Your task to perform on an android device: Is it going to rain today? Image 0: 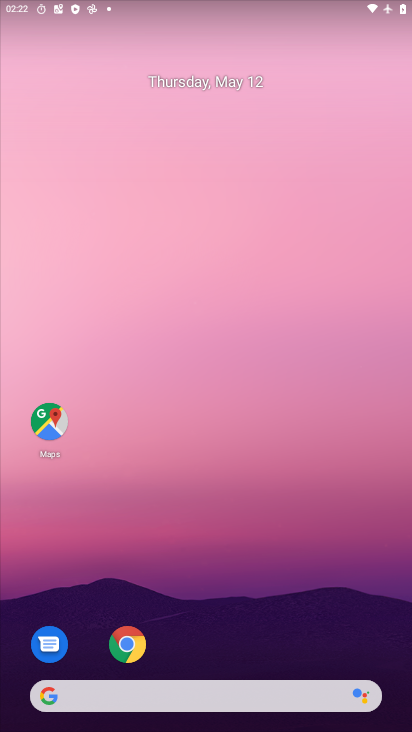
Step 0: drag from (268, 575) to (204, 101)
Your task to perform on an android device: Is it going to rain today? Image 1: 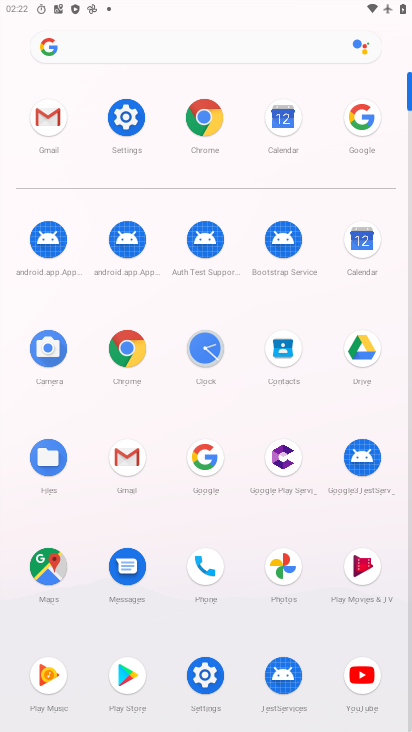
Step 1: click (204, 455)
Your task to perform on an android device: Is it going to rain today? Image 2: 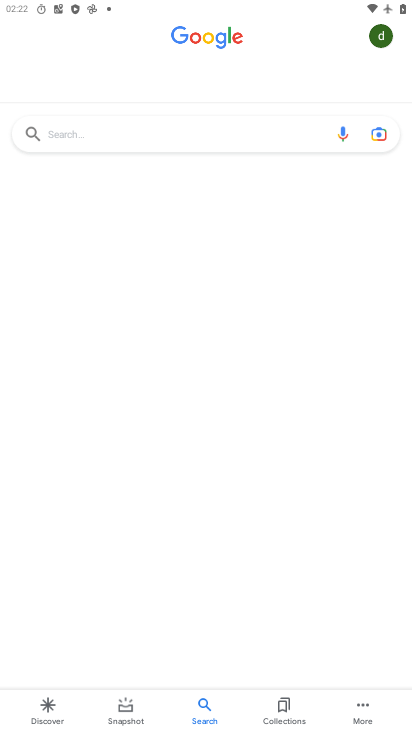
Step 2: click (149, 127)
Your task to perform on an android device: Is it going to rain today? Image 3: 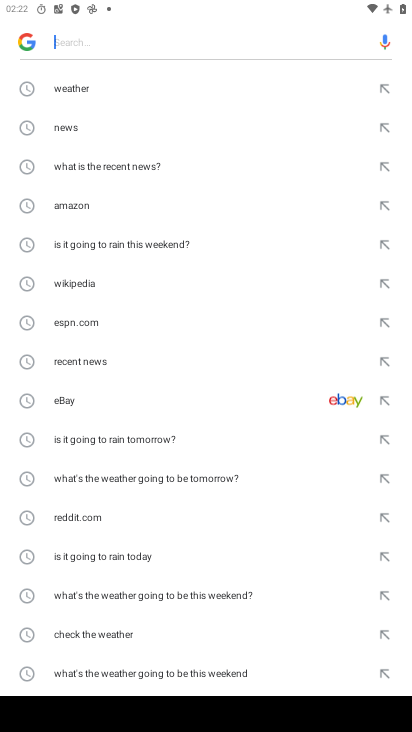
Step 3: type "is it going to rain today?"
Your task to perform on an android device: Is it going to rain today? Image 4: 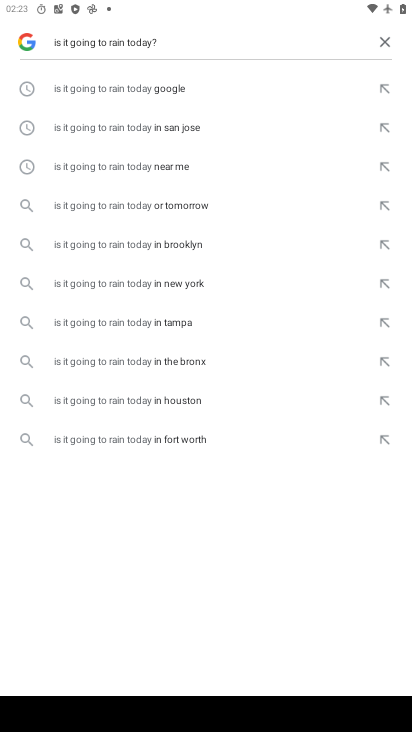
Step 4: click (157, 84)
Your task to perform on an android device: Is it going to rain today? Image 5: 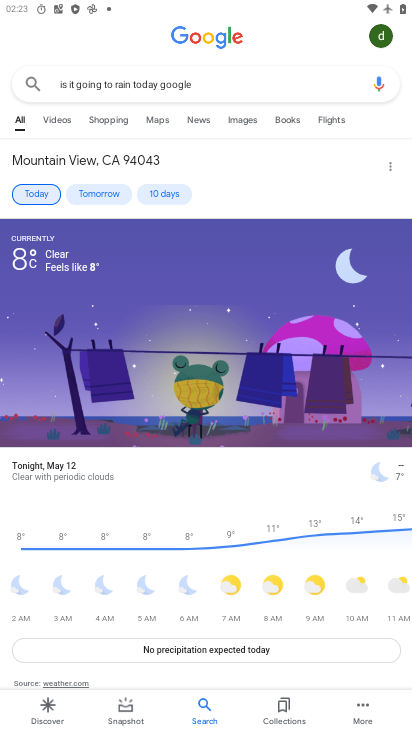
Step 5: task complete